Your task to perform on an android device: open sync settings in chrome Image 0: 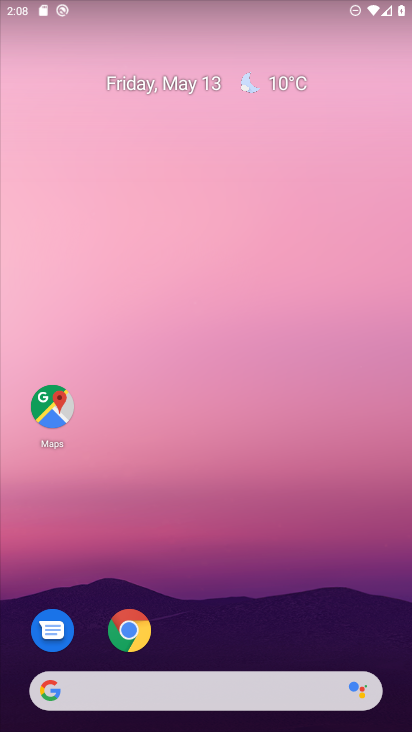
Step 0: click (127, 626)
Your task to perform on an android device: open sync settings in chrome Image 1: 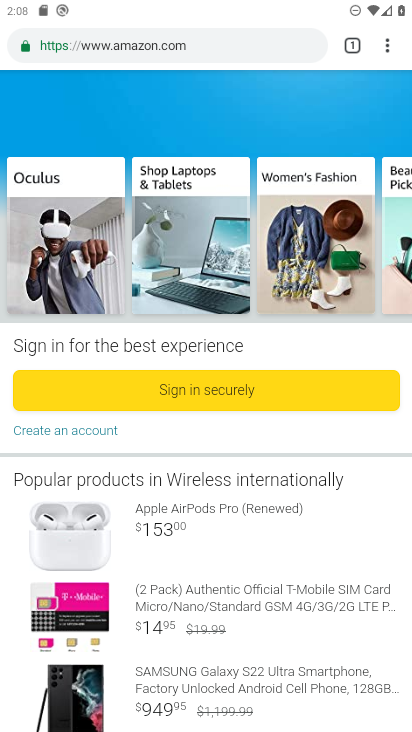
Step 1: click (387, 42)
Your task to perform on an android device: open sync settings in chrome Image 2: 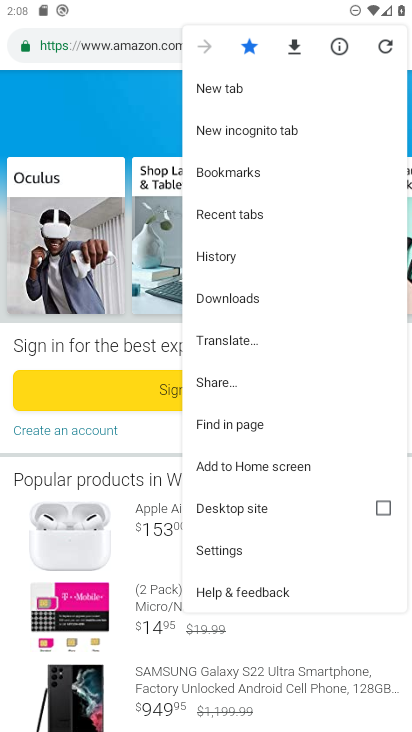
Step 2: click (250, 547)
Your task to perform on an android device: open sync settings in chrome Image 3: 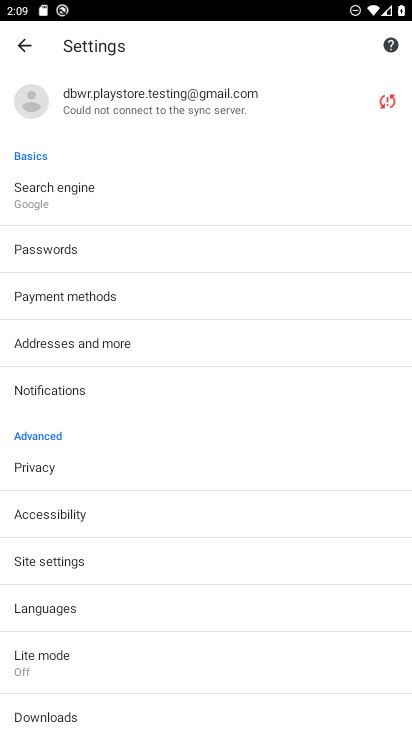
Step 3: click (166, 100)
Your task to perform on an android device: open sync settings in chrome Image 4: 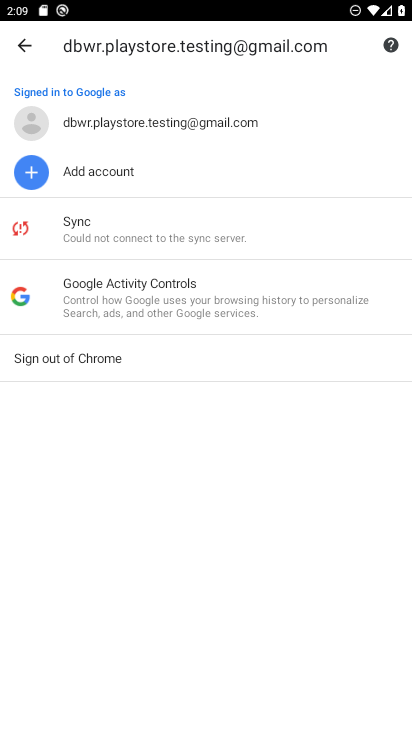
Step 4: click (127, 228)
Your task to perform on an android device: open sync settings in chrome Image 5: 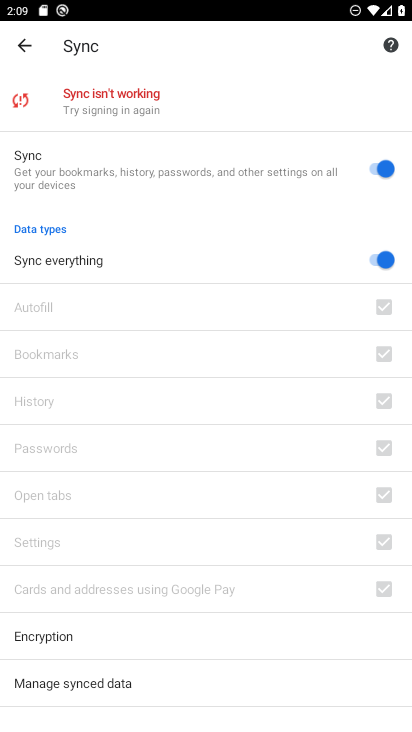
Step 5: task complete